Your task to perform on an android device: Open the phone app and click the voicemail tab. Image 0: 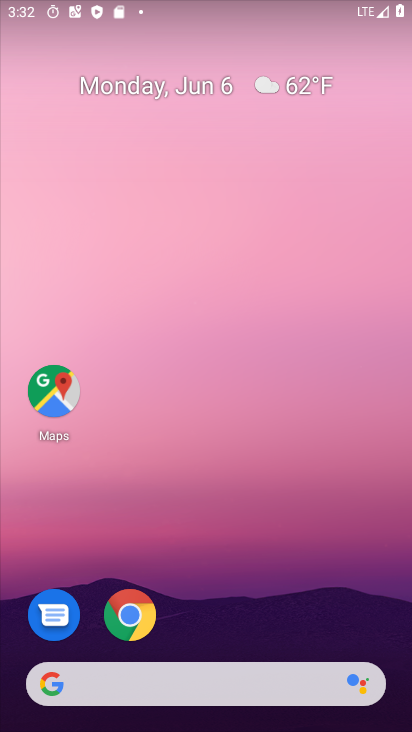
Step 0: drag from (212, 672) to (202, 89)
Your task to perform on an android device: Open the phone app and click the voicemail tab. Image 1: 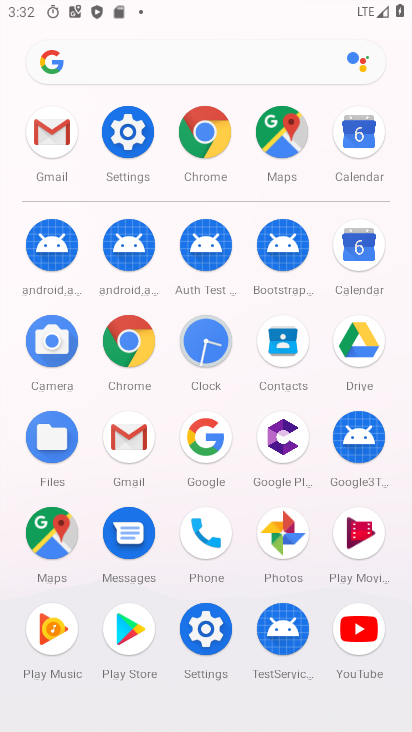
Step 1: click (188, 525)
Your task to perform on an android device: Open the phone app and click the voicemail tab. Image 2: 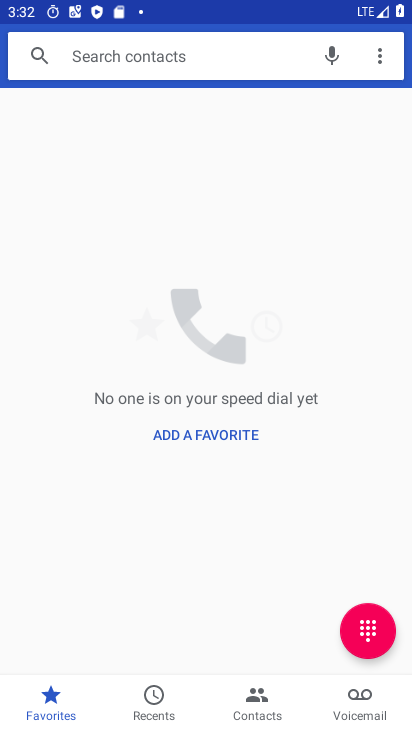
Step 2: click (355, 703)
Your task to perform on an android device: Open the phone app and click the voicemail tab. Image 3: 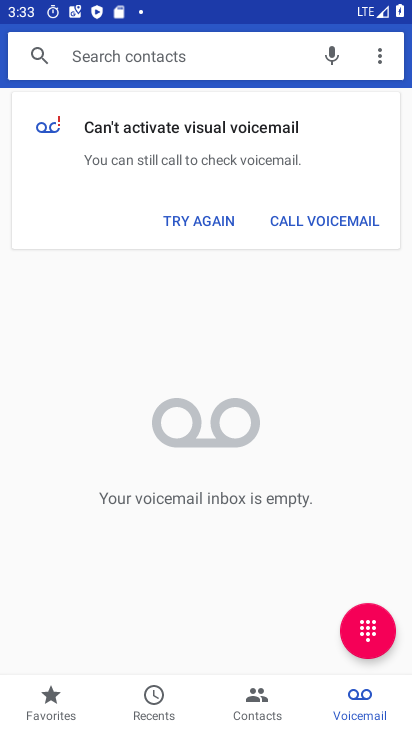
Step 3: task complete